Your task to perform on an android device: Clear the shopping cart on costco.com. Search for corsair k70 on costco.com, select the first entry, add it to the cart, then select checkout. Image 0: 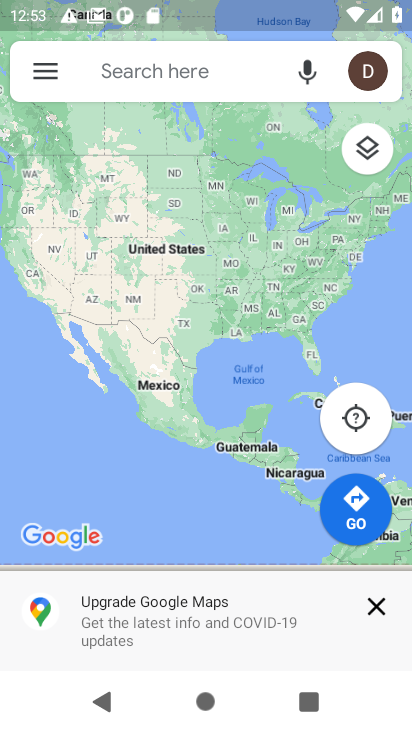
Step 0: press home button
Your task to perform on an android device: Clear the shopping cart on costco.com. Search for corsair k70 on costco.com, select the first entry, add it to the cart, then select checkout. Image 1: 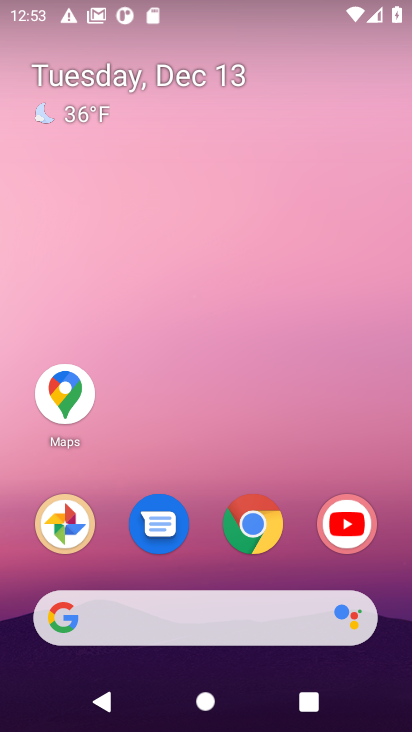
Step 1: click (255, 527)
Your task to perform on an android device: Clear the shopping cart on costco.com. Search for corsair k70 on costco.com, select the first entry, add it to the cart, then select checkout. Image 2: 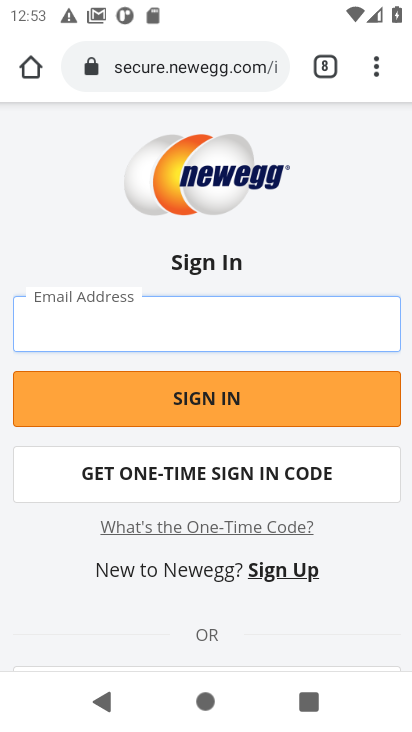
Step 2: click (164, 67)
Your task to perform on an android device: Clear the shopping cart on costco.com. Search for corsair k70 on costco.com, select the first entry, add it to the cart, then select checkout. Image 3: 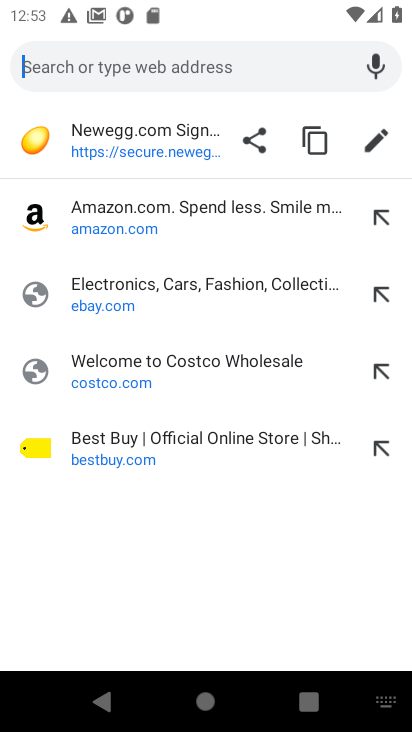
Step 3: click (102, 370)
Your task to perform on an android device: Clear the shopping cart on costco.com. Search for corsair k70 on costco.com, select the first entry, add it to the cart, then select checkout. Image 4: 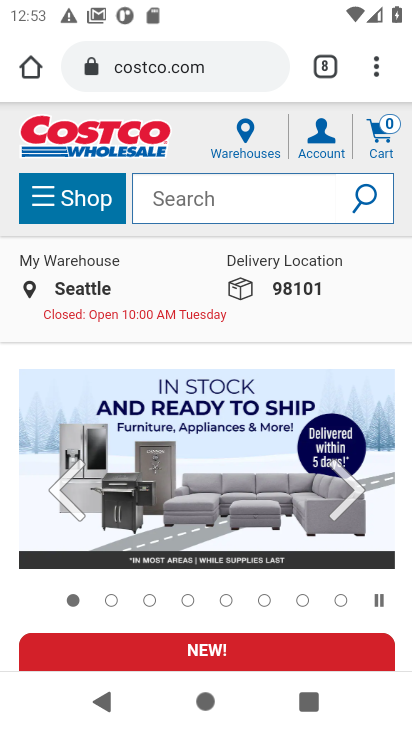
Step 4: click (375, 141)
Your task to perform on an android device: Clear the shopping cart on costco.com. Search for corsair k70 on costco.com, select the first entry, add it to the cart, then select checkout. Image 5: 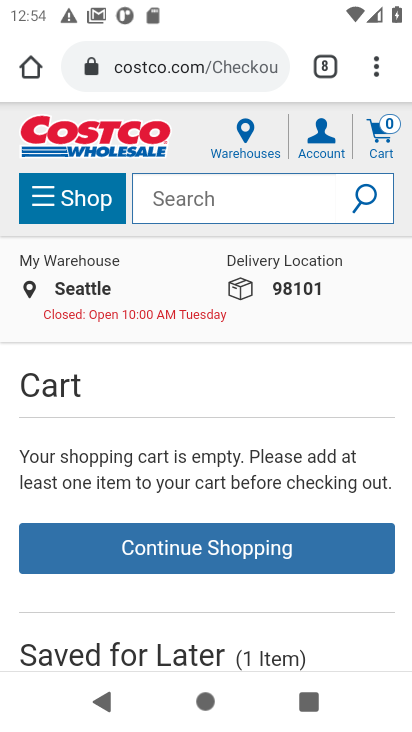
Step 5: click (182, 199)
Your task to perform on an android device: Clear the shopping cart on costco.com. Search for corsair k70 on costco.com, select the first entry, add it to the cart, then select checkout. Image 6: 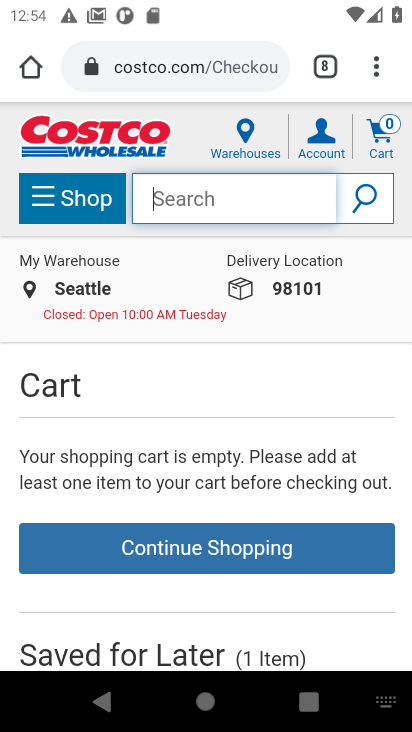
Step 6: type "corsair k70"
Your task to perform on an android device: Clear the shopping cart on costco.com. Search for corsair k70 on costco.com, select the first entry, add it to the cart, then select checkout. Image 7: 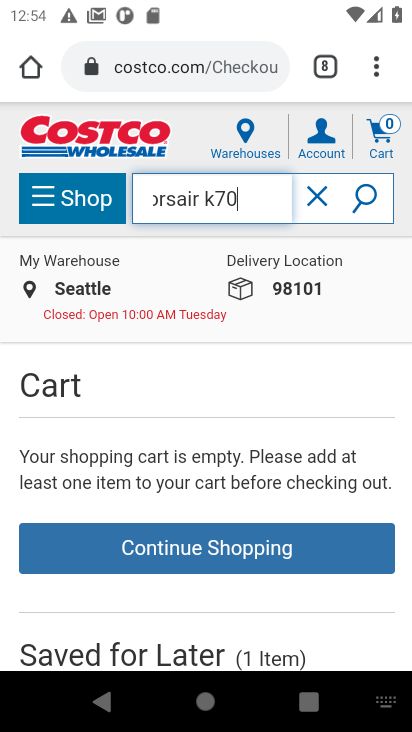
Step 7: click (358, 200)
Your task to perform on an android device: Clear the shopping cart on costco.com. Search for corsair k70 on costco.com, select the first entry, add it to the cart, then select checkout. Image 8: 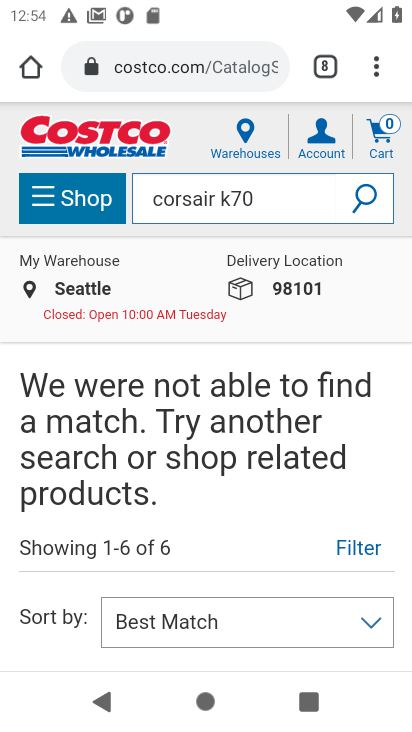
Step 8: task complete